Your task to perform on an android device: open wifi settings Image 0: 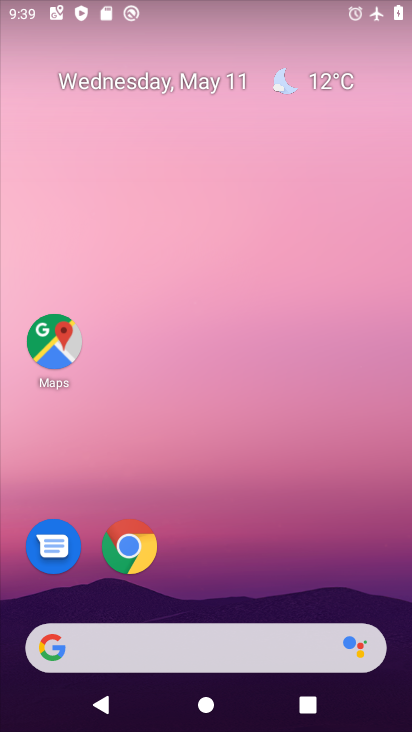
Step 0: drag from (397, 623) to (311, 98)
Your task to perform on an android device: open wifi settings Image 1: 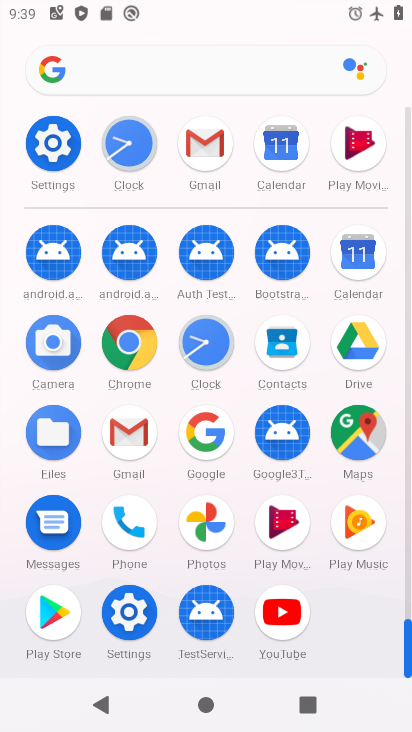
Step 1: click (130, 610)
Your task to perform on an android device: open wifi settings Image 2: 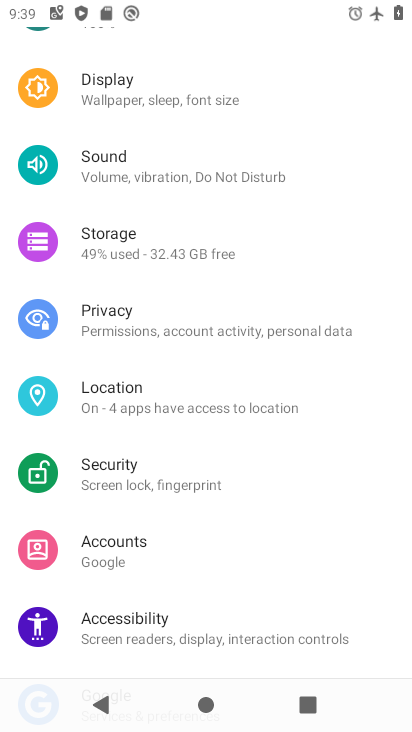
Step 2: drag from (350, 159) to (336, 468)
Your task to perform on an android device: open wifi settings Image 3: 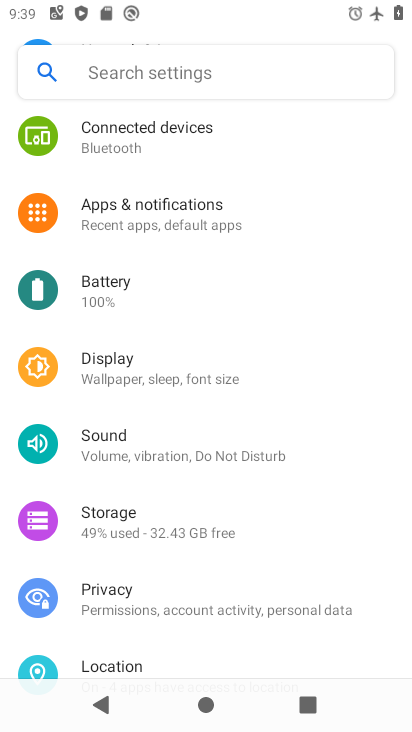
Step 3: drag from (308, 153) to (328, 426)
Your task to perform on an android device: open wifi settings Image 4: 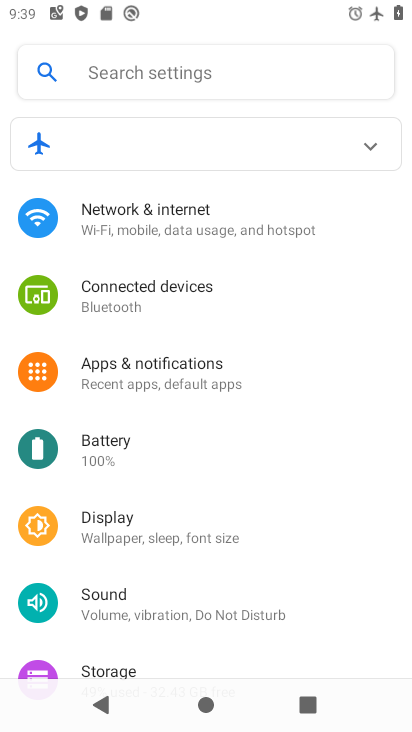
Step 4: click (131, 212)
Your task to perform on an android device: open wifi settings Image 5: 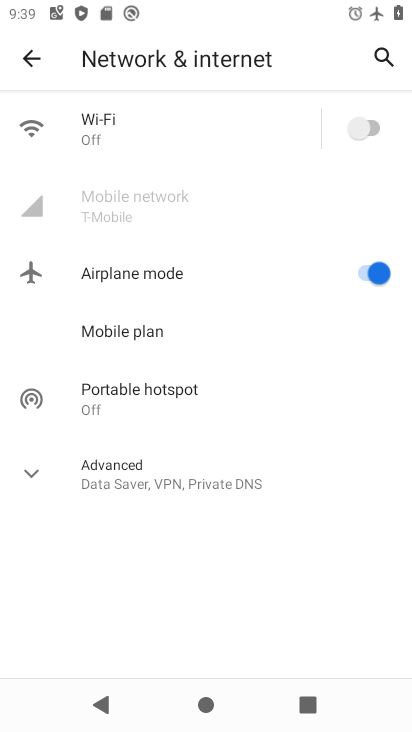
Step 5: click (87, 118)
Your task to perform on an android device: open wifi settings Image 6: 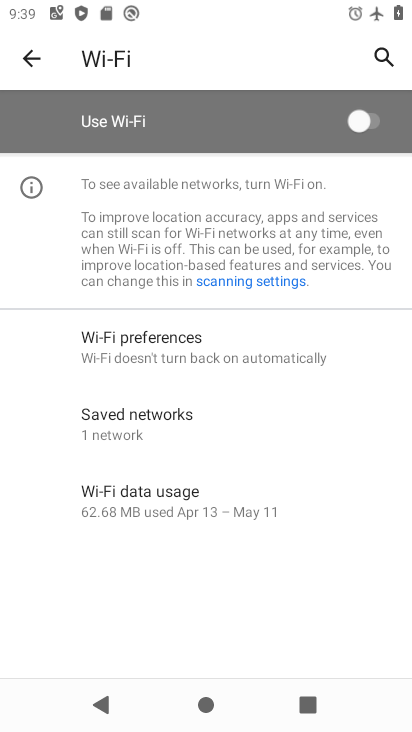
Step 6: task complete